Your task to perform on an android device: delete a single message in the gmail app Image 0: 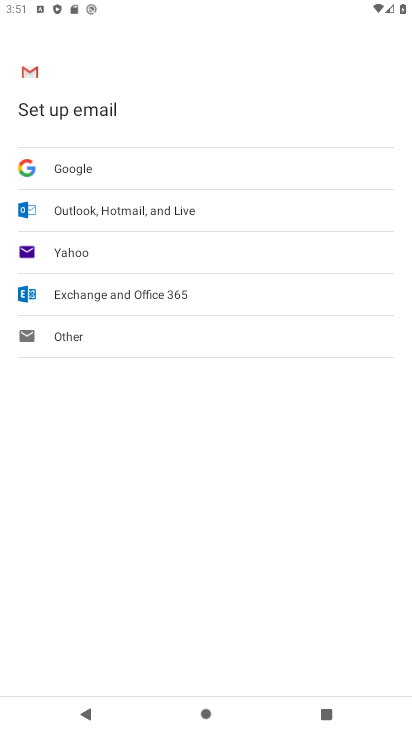
Step 0: press home button
Your task to perform on an android device: delete a single message in the gmail app Image 1: 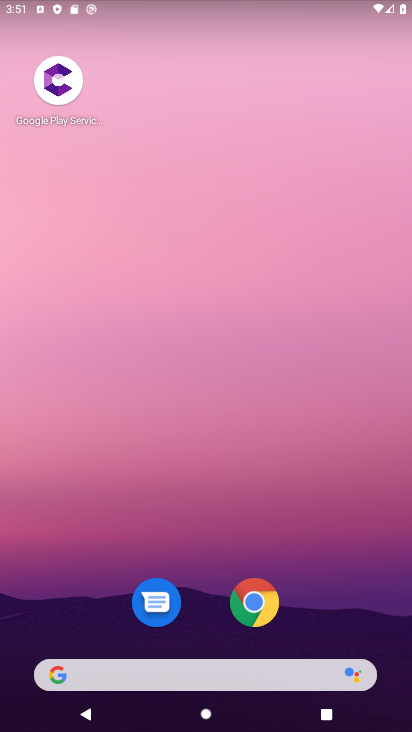
Step 1: drag from (231, 525) to (194, 59)
Your task to perform on an android device: delete a single message in the gmail app Image 2: 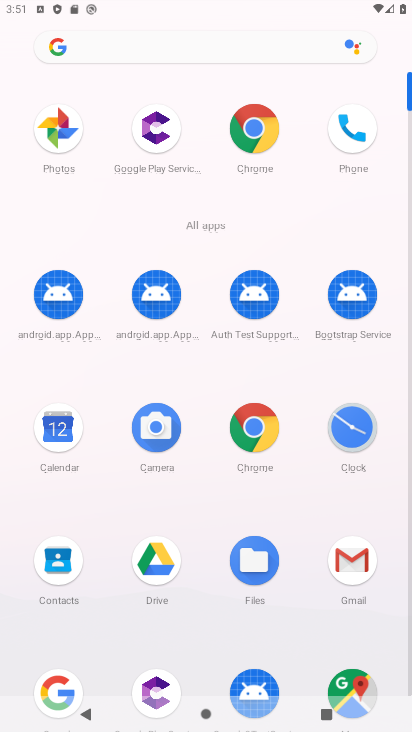
Step 2: click (366, 558)
Your task to perform on an android device: delete a single message in the gmail app Image 3: 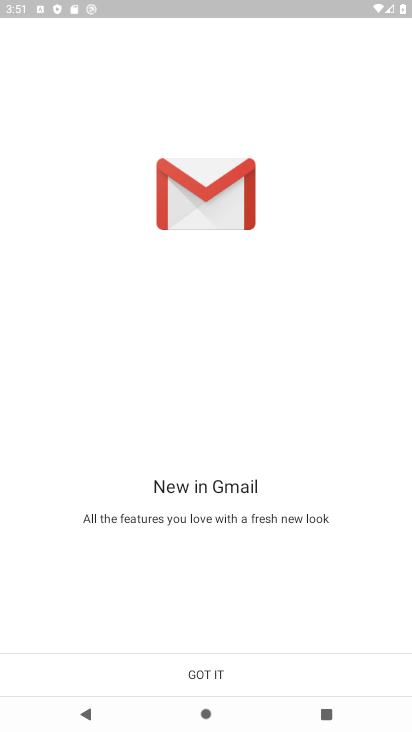
Step 3: click (287, 672)
Your task to perform on an android device: delete a single message in the gmail app Image 4: 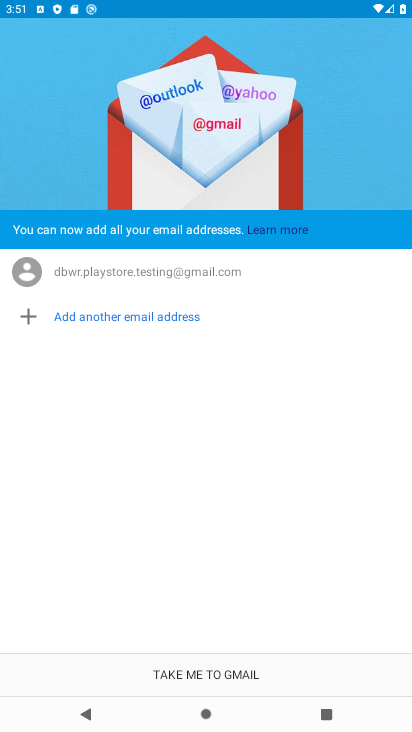
Step 4: click (282, 668)
Your task to perform on an android device: delete a single message in the gmail app Image 5: 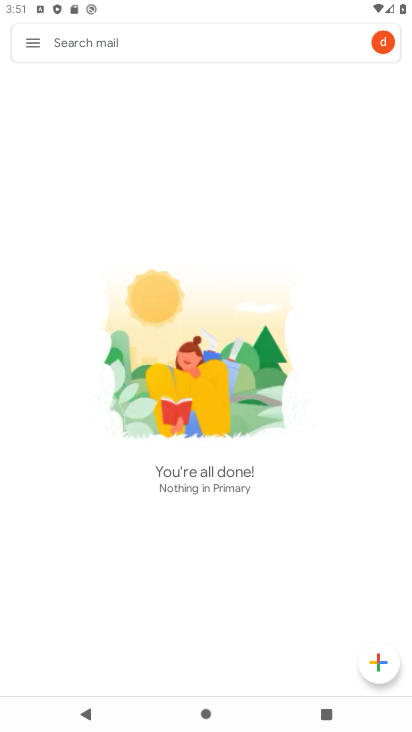
Step 5: click (29, 37)
Your task to perform on an android device: delete a single message in the gmail app Image 6: 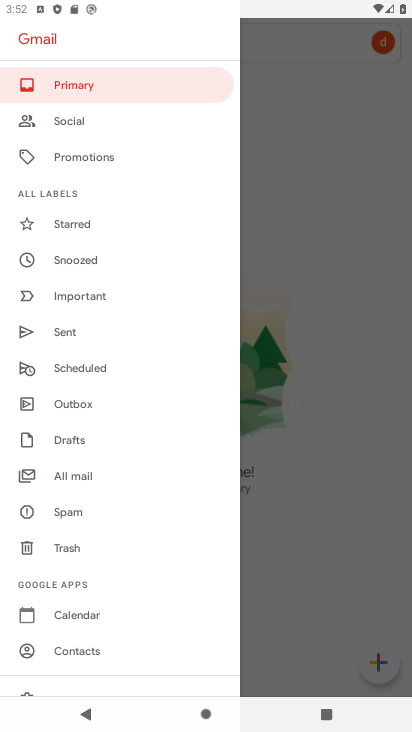
Step 6: click (102, 470)
Your task to perform on an android device: delete a single message in the gmail app Image 7: 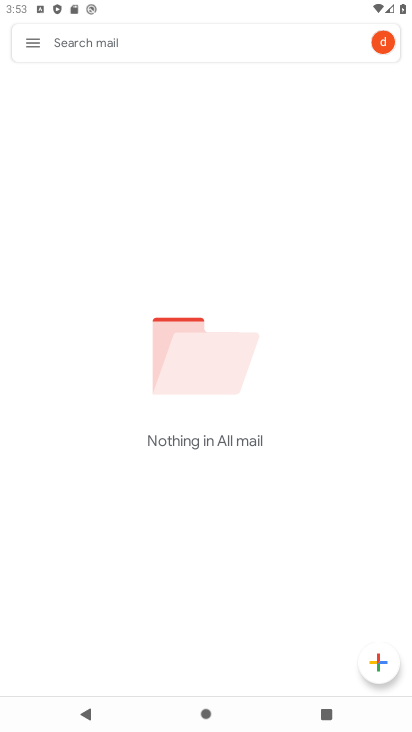
Step 7: task complete